Your task to perform on an android device: Open Google Chrome Image 0: 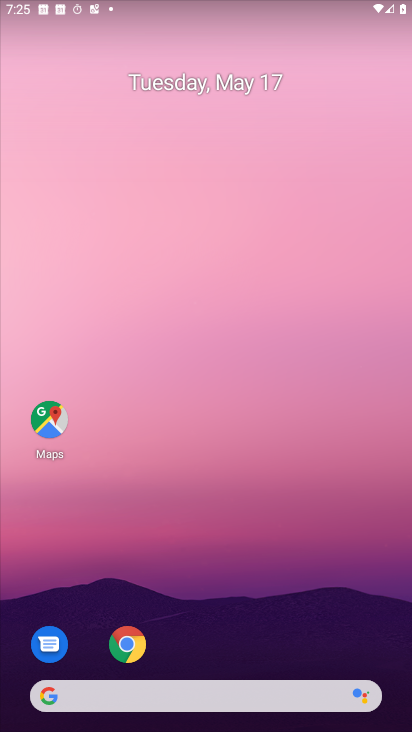
Step 0: drag from (326, 621) to (266, 362)
Your task to perform on an android device: Open Google Chrome Image 1: 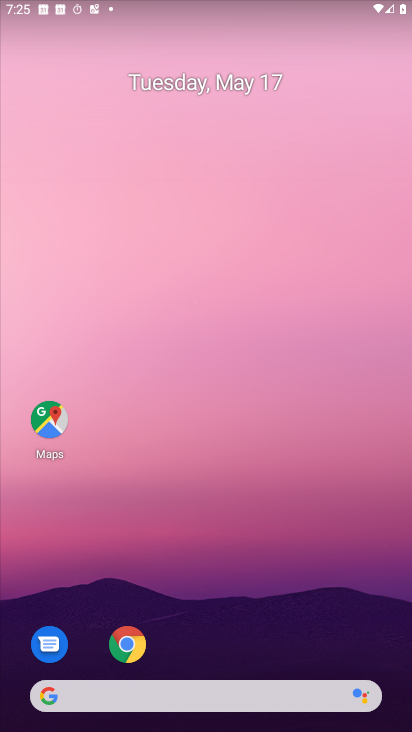
Step 1: drag from (274, 616) to (253, 4)
Your task to perform on an android device: Open Google Chrome Image 2: 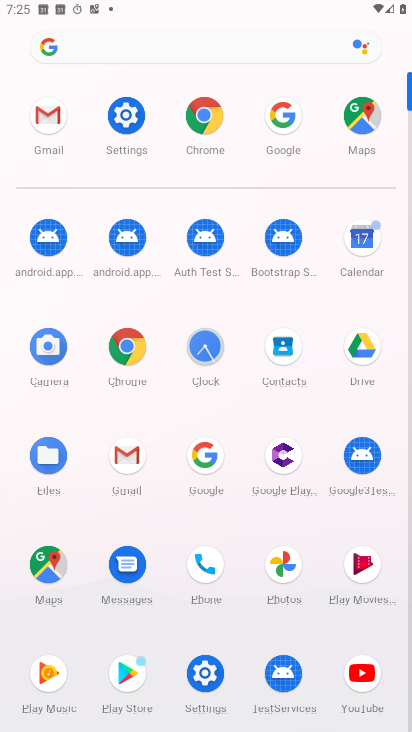
Step 2: click (123, 351)
Your task to perform on an android device: Open Google Chrome Image 3: 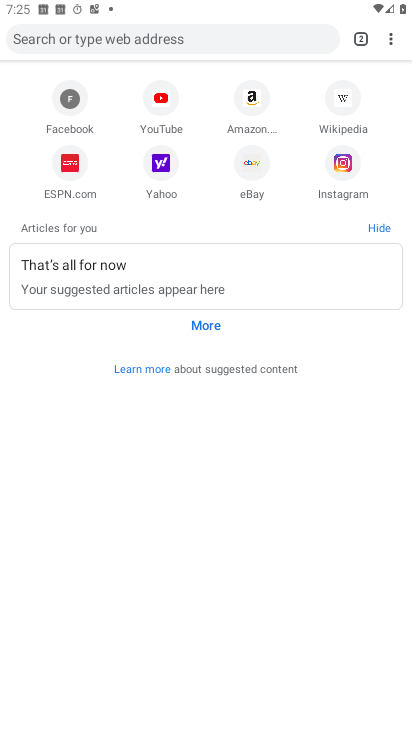
Step 3: task complete